Your task to perform on an android device: When is my next appointment? Image 0: 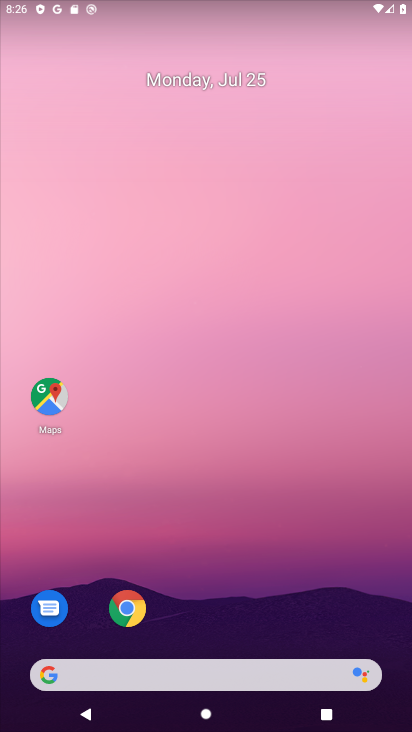
Step 0: drag from (235, 622) to (272, 149)
Your task to perform on an android device: When is my next appointment? Image 1: 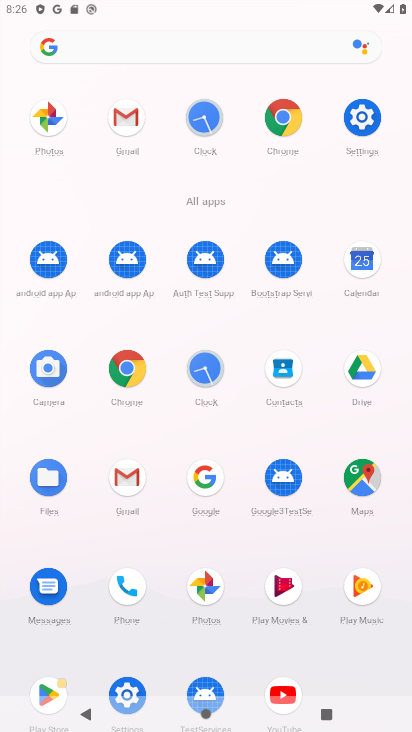
Step 1: click (347, 257)
Your task to perform on an android device: When is my next appointment? Image 2: 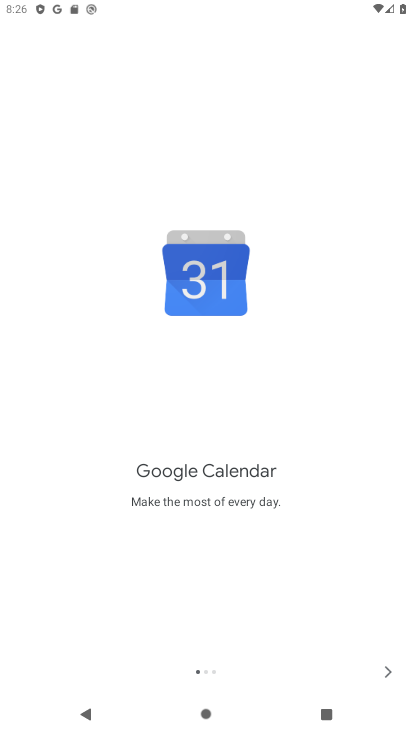
Step 2: click (382, 674)
Your task to perform on an android device: When is my next appointment? Image 3: 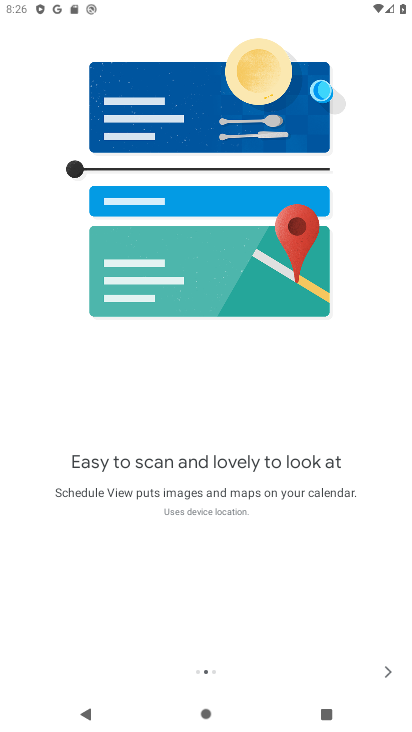
Step 3: click (382, 665)
Your task to perform on an android device: When is my next appointment? Image 4: 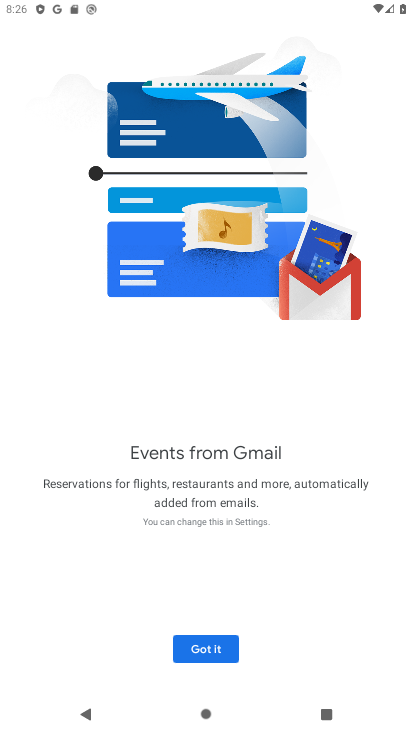
Step 4: click (212, 640)
Your task to perform on an android device: When is my next appointment? Image 5: 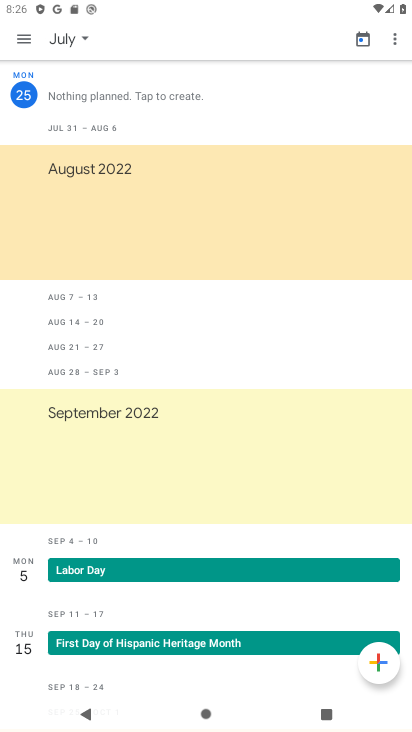
Step 5: click (18, 37)
Your task to perform on an android device: When is my next appointment? Image 6: 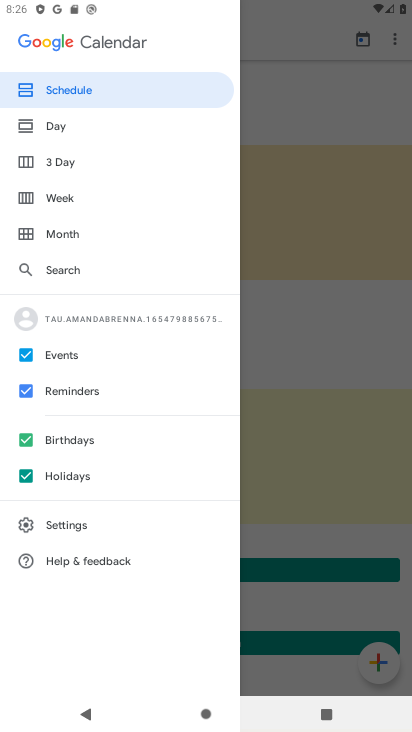
Step 6: click (66, 133)
Your task to perform on an android device: When is my next appointment? Image 7: 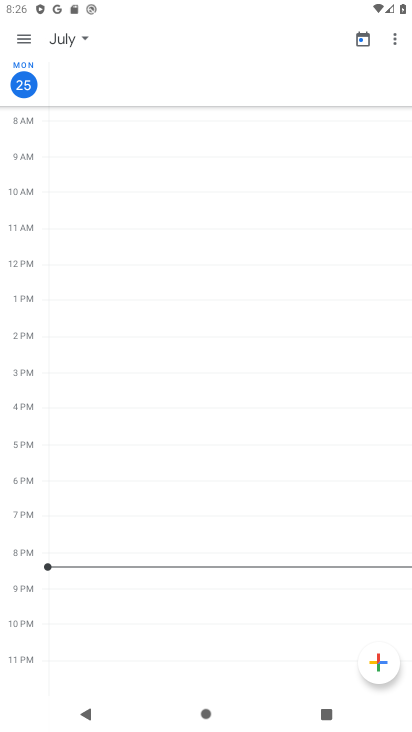
Step 7: task complete